Your task to perform on an android device: Go to ESPN.com Image 0: 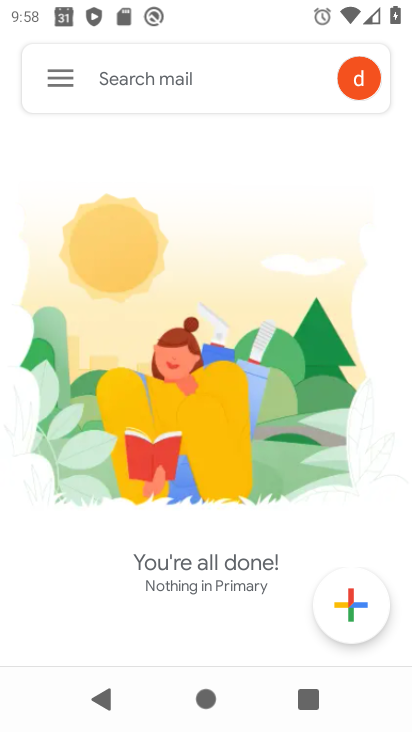
Step 0: press home button
Your task to perform on an android device: Go to ESPN.com Image 1: 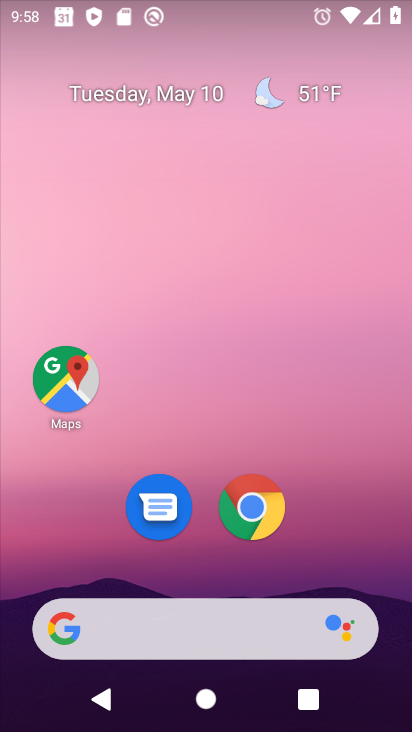
Step 1: click (246, 616)
Your task to perform on an android device: Go to ESPN.com Image 2: 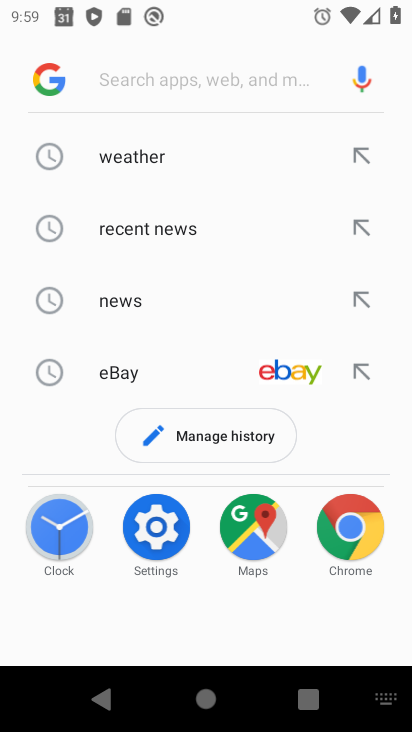
Step 2: type "espn.com"
Your task to perform on an android device: Go to ESPN.com Image 3: 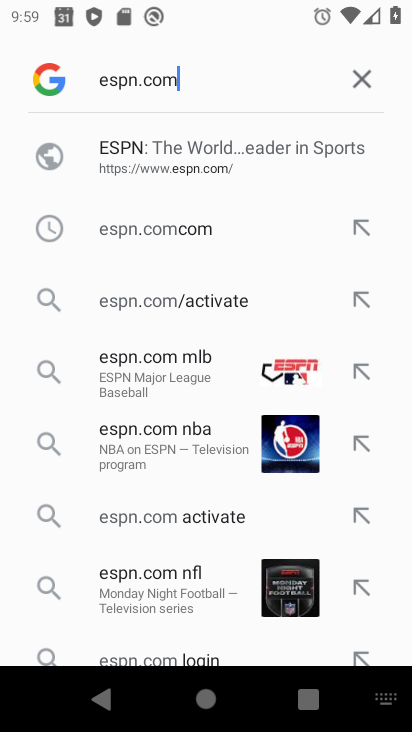
Step 3: click (195, 151)
Your task to perform on an android device: Go to ESPN.com Image 4: 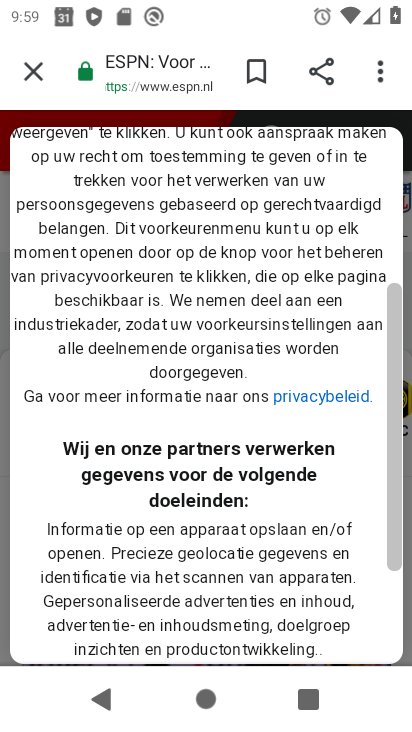
Step 4: task complete